Your task to perform on an android device: Go to ESPN.com Image 0: 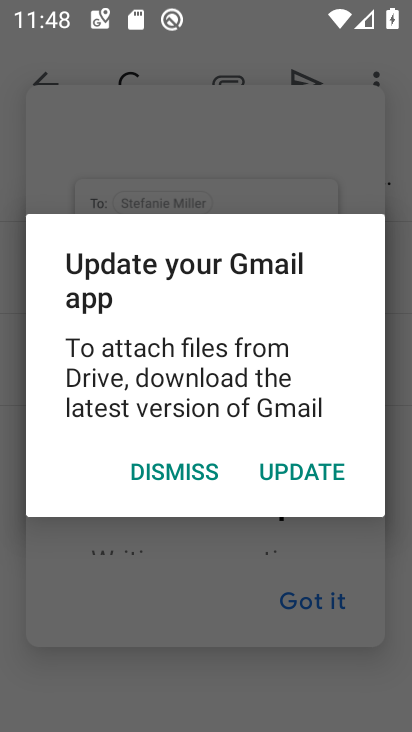
Step 0: press home button
Your task to perform on an android device: Go to ESPN.com Image 1: 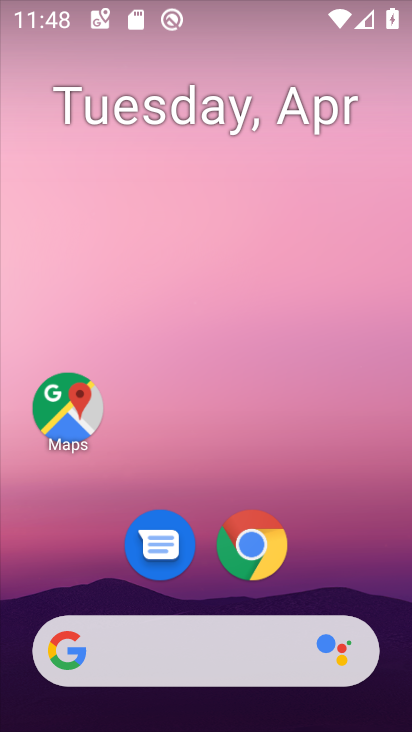
Step 1: click (263, 565)
Your task to perform on an android device: Go to ESPN.com Image 2: 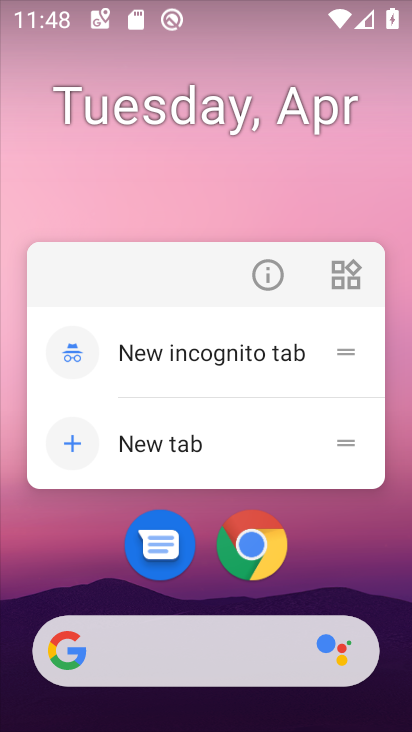
Step 2: click (243, 537)
Your task to perform on an android device: Go to ESPN.com Image 3: 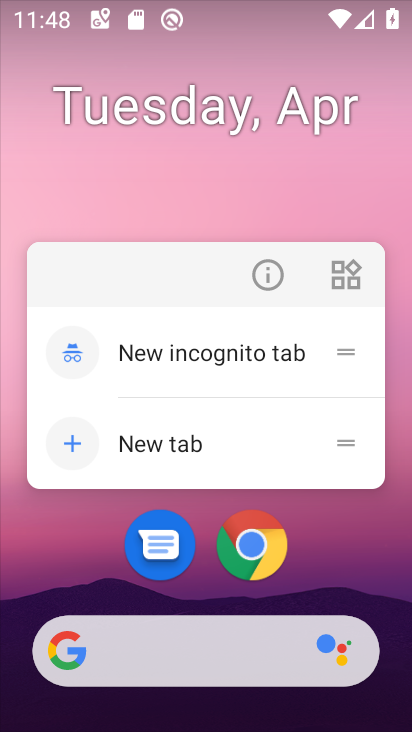
Step 3: click (243, 536)
Your task to perform on an android device: Go to ESPN.com Image 4: 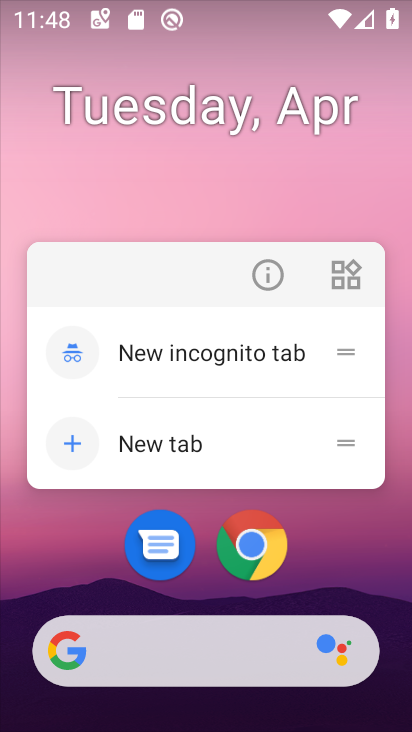
Step 4: click (253, 542)
Your task to perform on an android device: Go to ESPN.com Image 5: 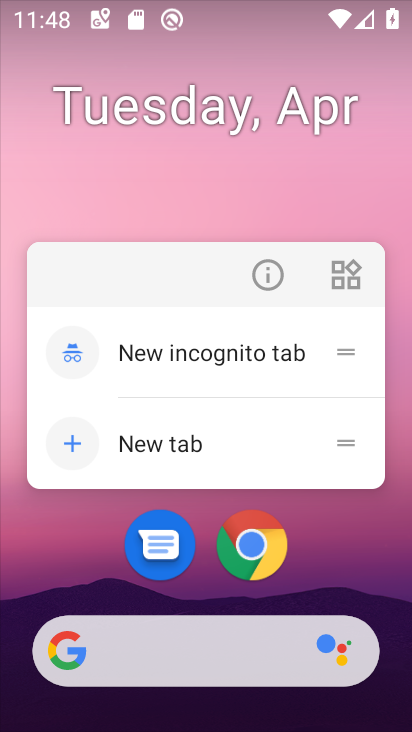
Step 5: click (265, 556)
Your task to perform on an android device: Go to ESPN.com Image 6: 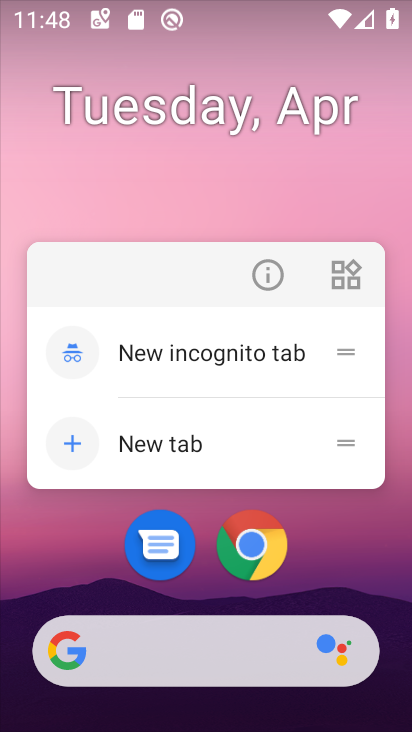
Step 6: click (265, 554)
Your task to perform on an android device: Go to ESPN.com Image 7: 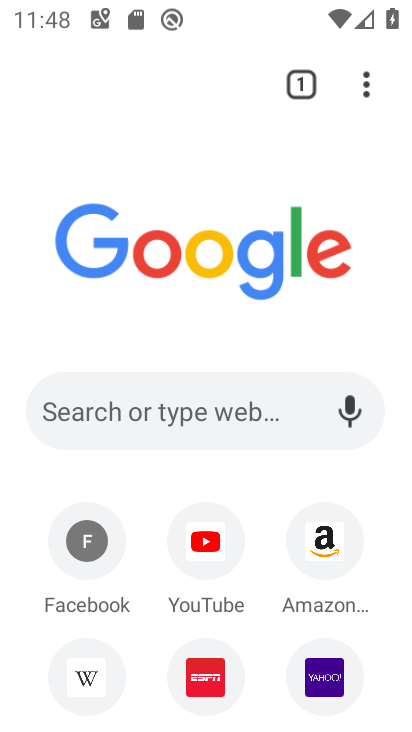
Step 7: click (186, 403)
Your task to perform on an android device: Go to ESPN.com Image 8: 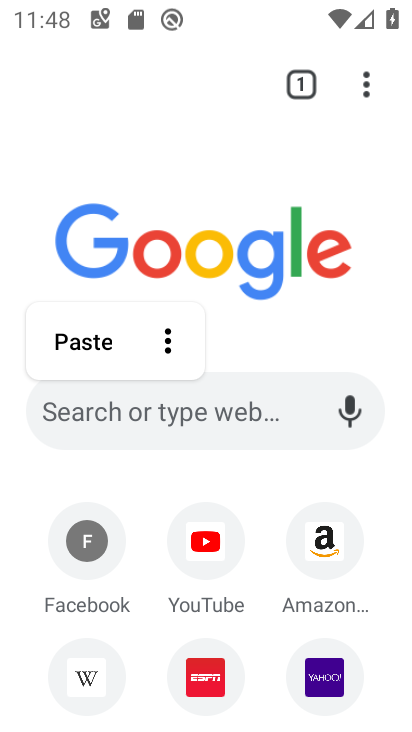
Step 8: type "espn.com"
Your task to perform on an android device: Go to ESPN.com Image 9: 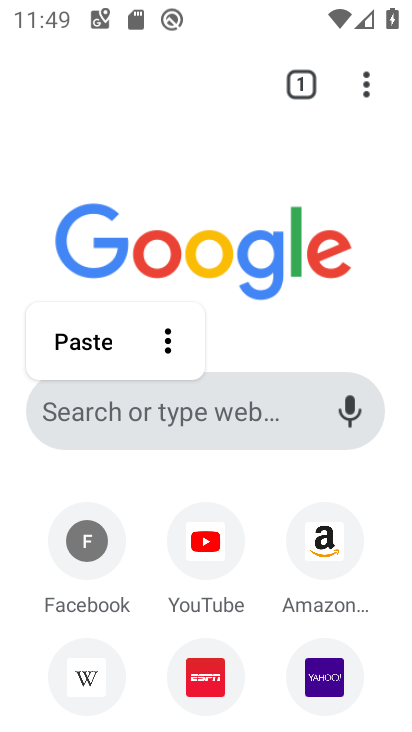
Step 9: click (190, 416)
Your task to perform on an android device: Go to ESPN.com Image 10: 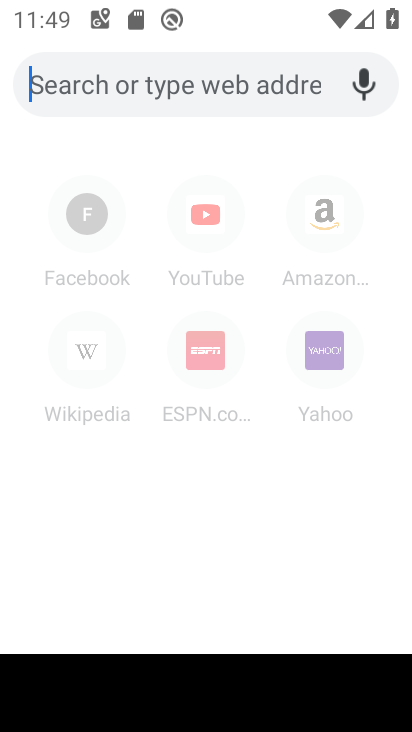
Step 10: type "espn.com"
Your task to perform on an android device: Go to ESPN.com Image 11: 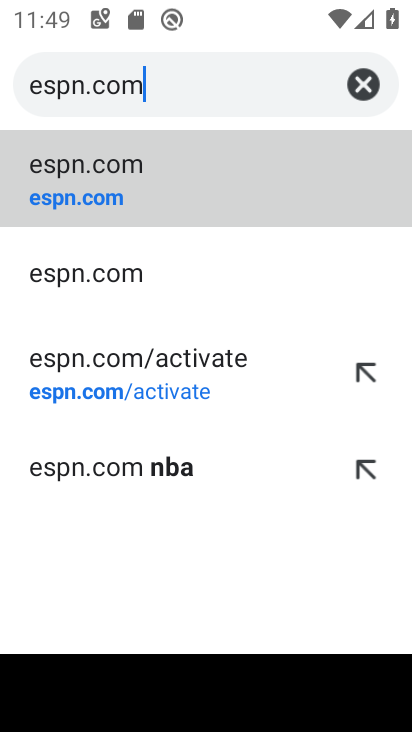
Step 11: click (81, 183)
Your task to perform on an android device: Go to ESPN.com Image 12: 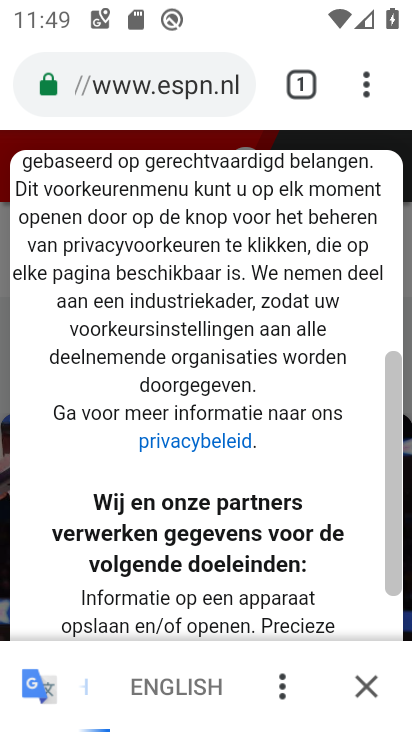
Step 12: task complete